Your task to perform on an android device: Show me popular games on the Play Store Image 0: 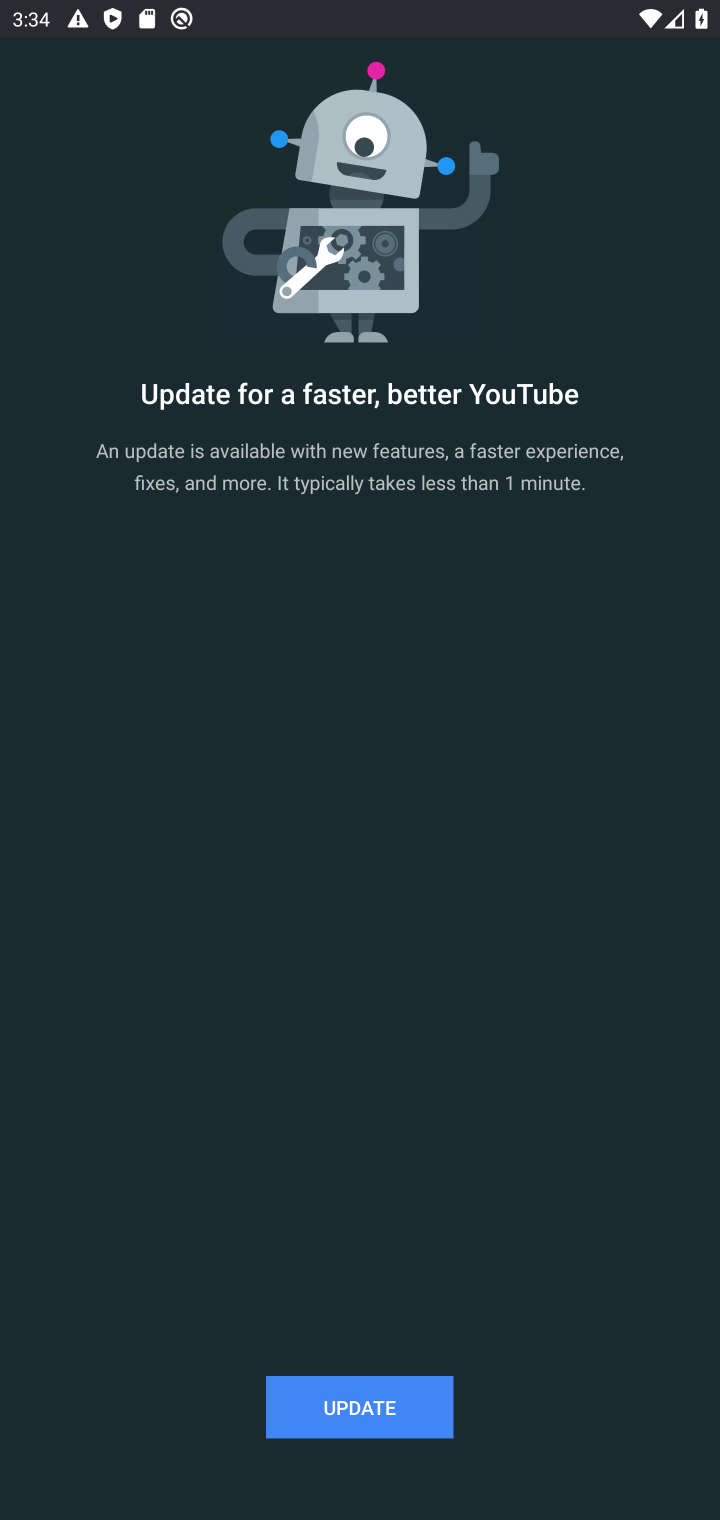
Step 0: task complete